Your task to perform on an android device: turn smart compose on in the gmail app Image 0: 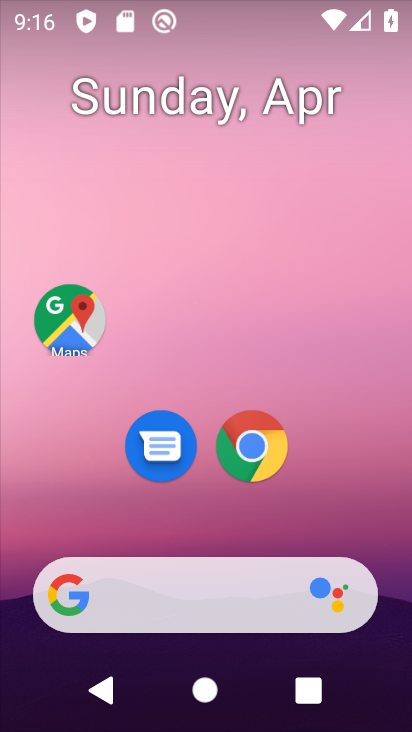
Step 0: click (202, 103)
Your task to perform on an android device: turn smart compose on in the gmail app Image 1: 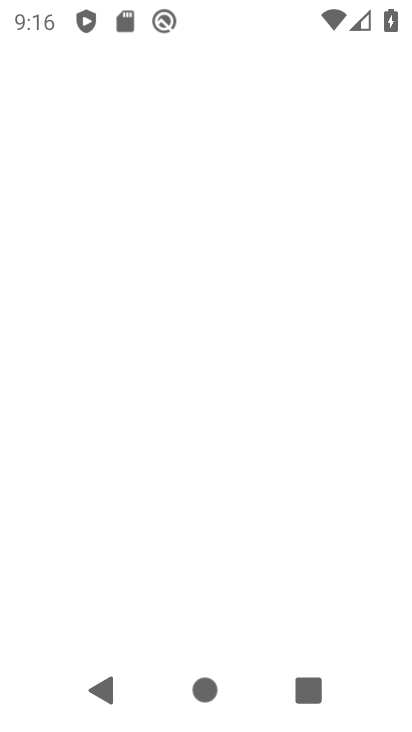
Step 1: drag from (207, 503) to (230, 189)
Your task to perform on an android device: turn smart compose on in the gmail app Image 2: 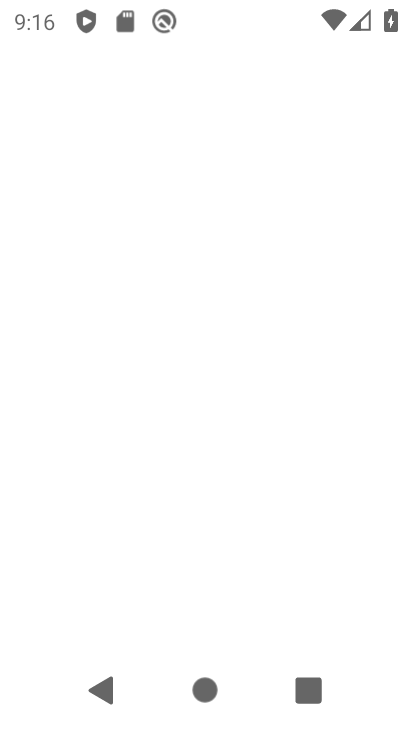
Step 2: press home button
Your task to perform on an android device: turn smart compose on in the gmail app Image 3: 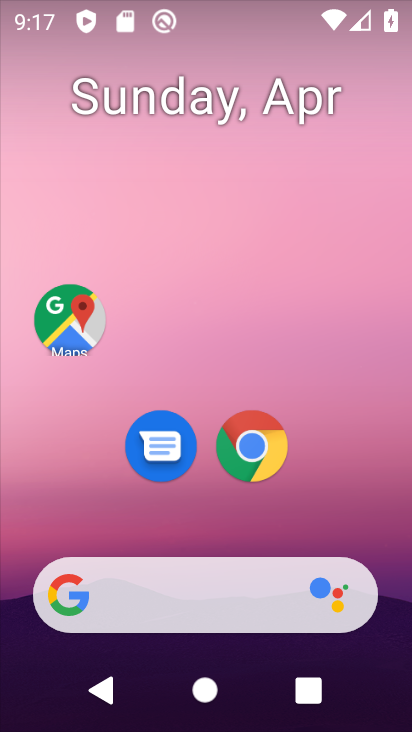
Step 3: drag from (205, 508) to (208, 56)
Your task to perform on an android device: turn smart compose on in the gmail app Image 4: 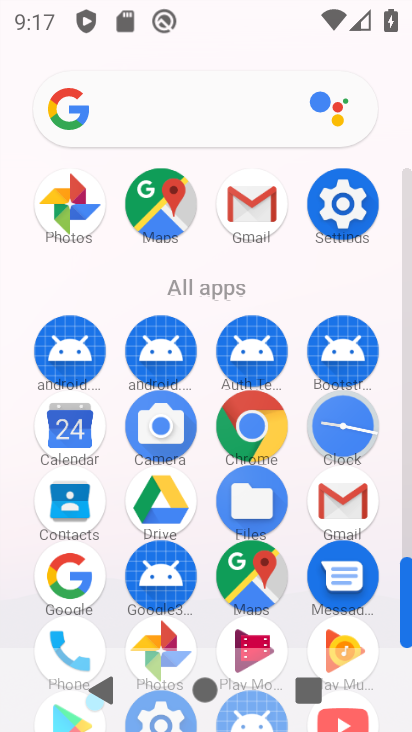
Step 4: click (336, 514)
Your task to perform on an android device: turn smart compose on in the gmail app Image 5: 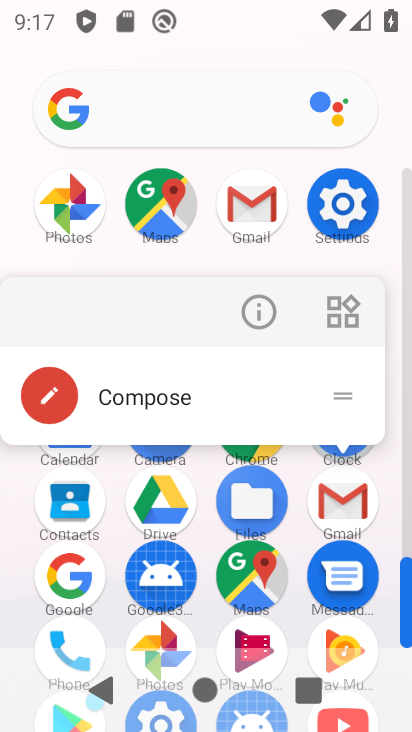
Step 5: click (271, 321)
Your task to perform on an android device: turn smart compose on in the gmail app Image 6: 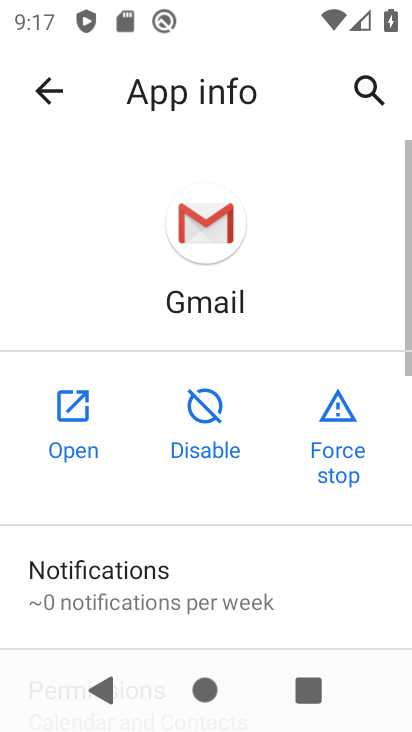
Step 6: click (69, 410)
Your task to perform on an android device: turn smart compose on in the gmail app Image 7: 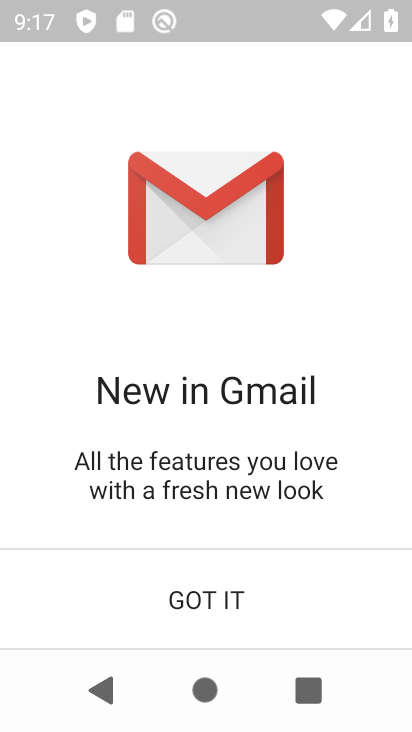
Step 7: click (219, 580)
Your task to perform on an android device: turn smart compose on in the gmail app Image 8: 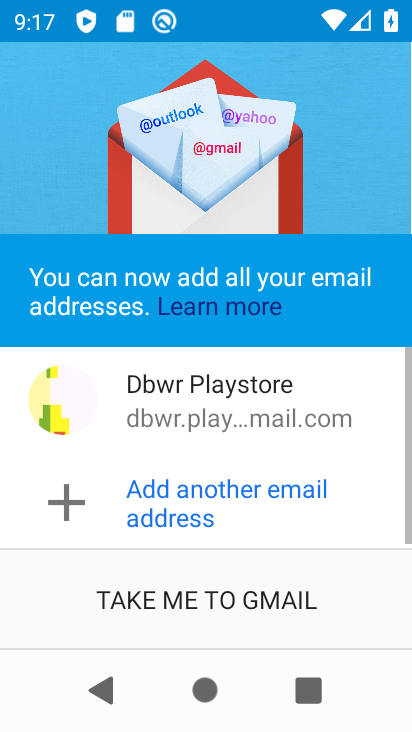
Step 8: click (233, 587)
Your task to perform on an android device: turn smart compose on in the gmail app Image 9: 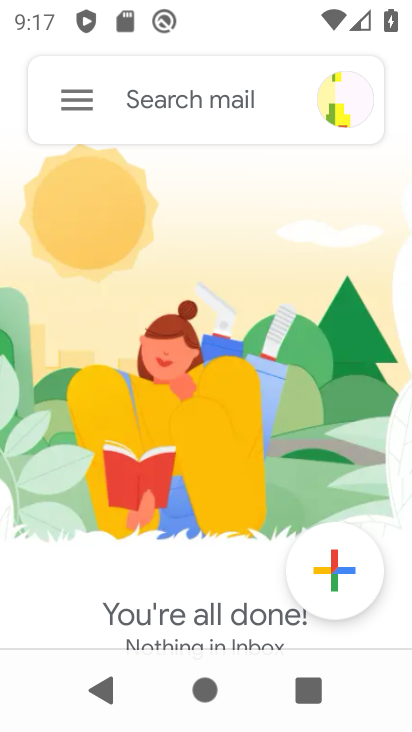
Step 9: click (53, 108)
Your task to perform on an android device: turn smart compose on in the gmail app Image 10: 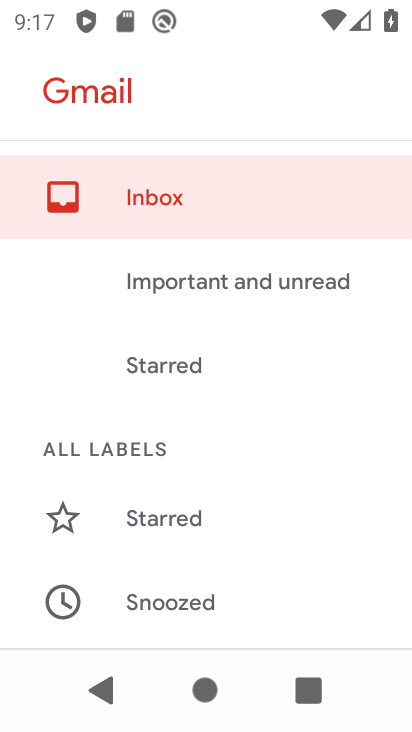
Step 10: drag from (200, 592) to (247, 97)
Your task to perform on an android device: turn smart compose on in the gmail app Image 11: 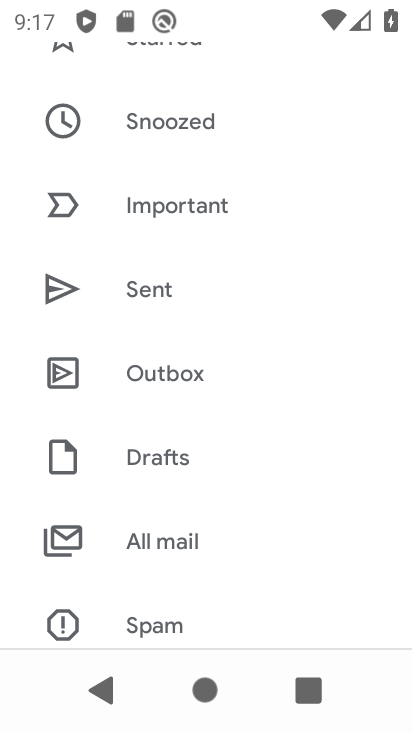
Step 11: drag from (216, 594) to (212, 113)
Your task to perform on an android device: turn smart compose on in the gmail app Image 12: 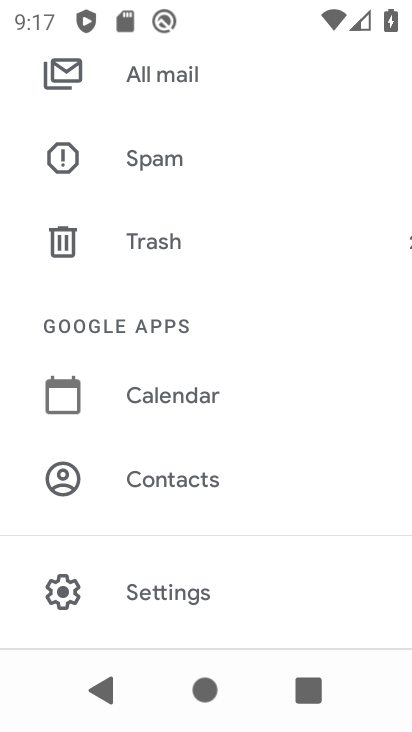
Step 12: click (205, 580)
Your task to perform on an android device: turn smart compose on in the gmail app Image 13: 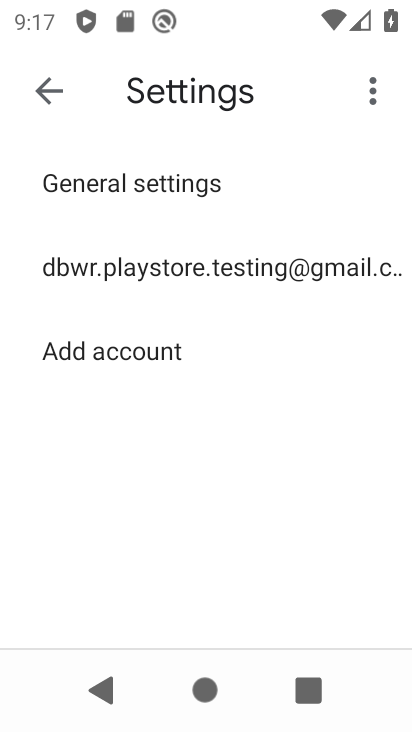
Step 13: click (198, 288)
Your task to perform on an android device: turn smart compose on in the gmail app Image 14: 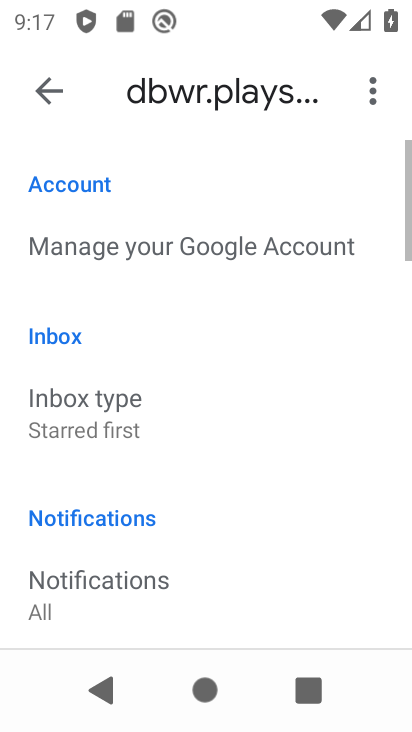
Step 14: task complete